Your task to perform on an android device: turn on location history Image 0: 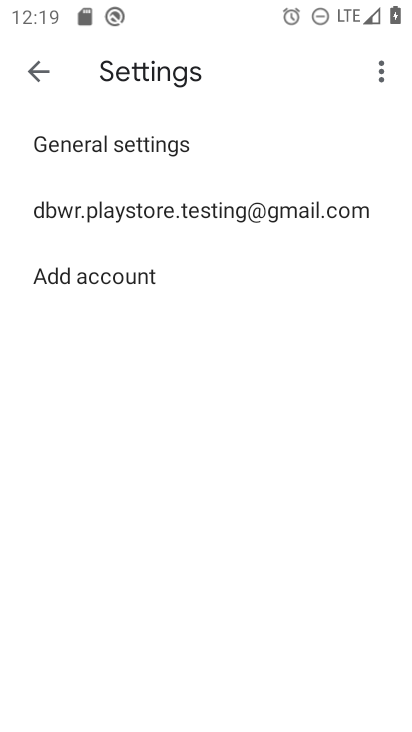
Step 0: press home button
Your task to perform on an android device: turn on location history Image 1: 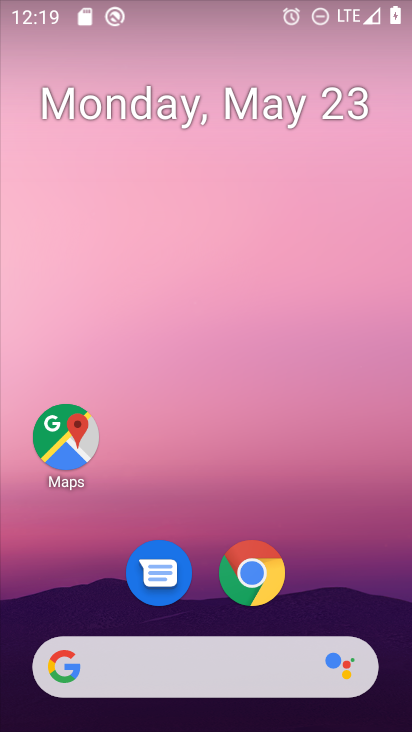
Step 1: drag from (323, 592) to (287, 65)
Your task to perform on an android device: turn on location history Image 2: 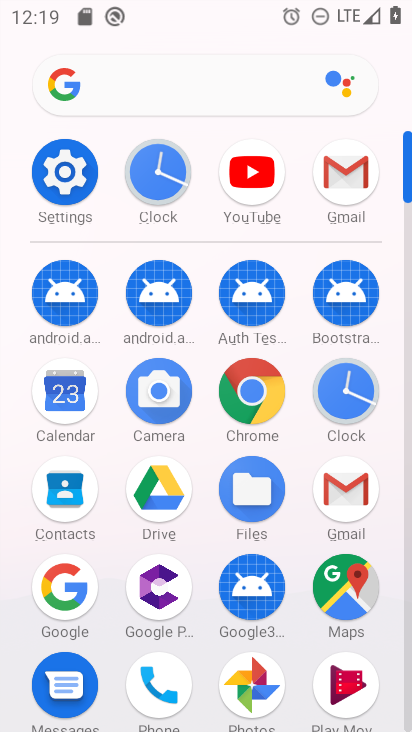
Step 2: click (72, 179)
Your task to perform on an android device: turn on location history Image 3: 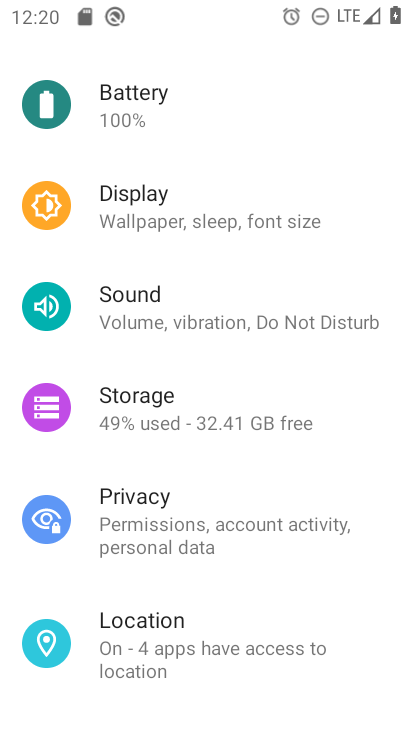
Step 3: click (184, 619)
Your task to perform on an android device: turn on location history Image 4: 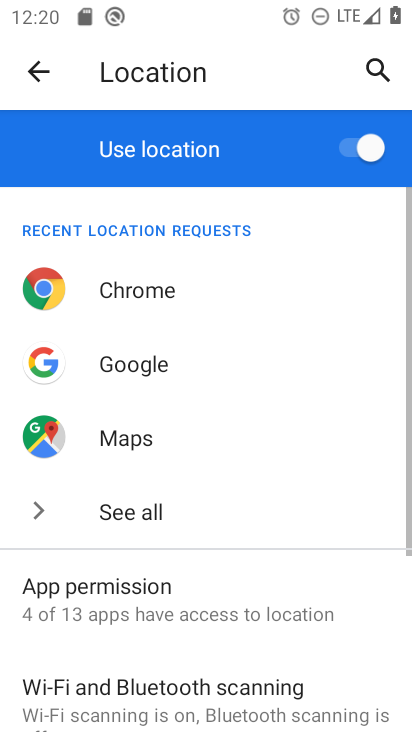
Step 4: drag from (173, 588) to (154, 274)
Your task to perform on an android device: turn on location history Image 5: 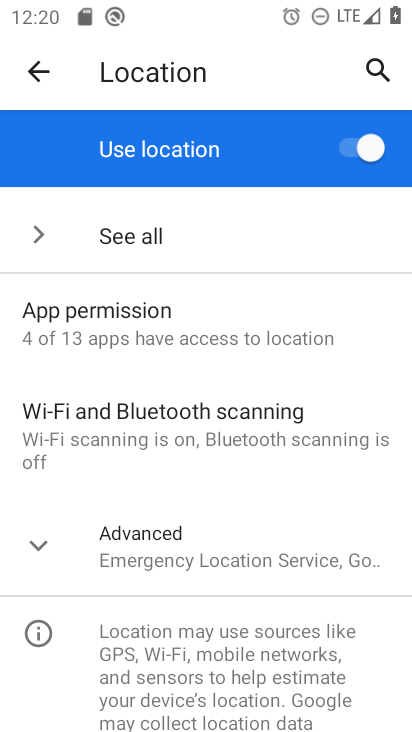
Step 5: click (163, 552)
Your task to perform on an android device: turn on location history Image 6: 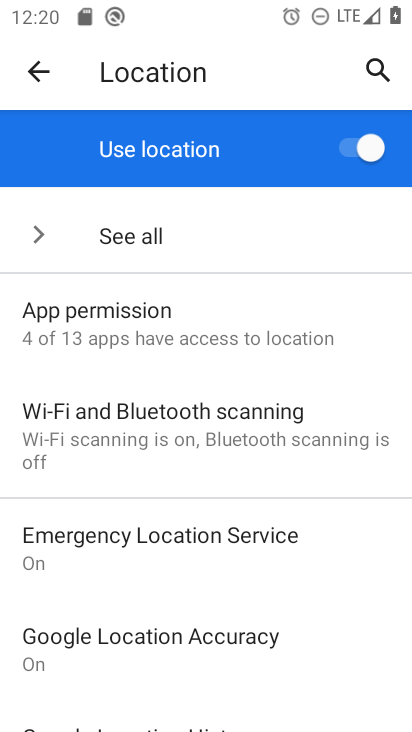
Step 6: drag from (164, 612) to (156, 401)
Your task to perform on an android device: turn on location history Image 7: 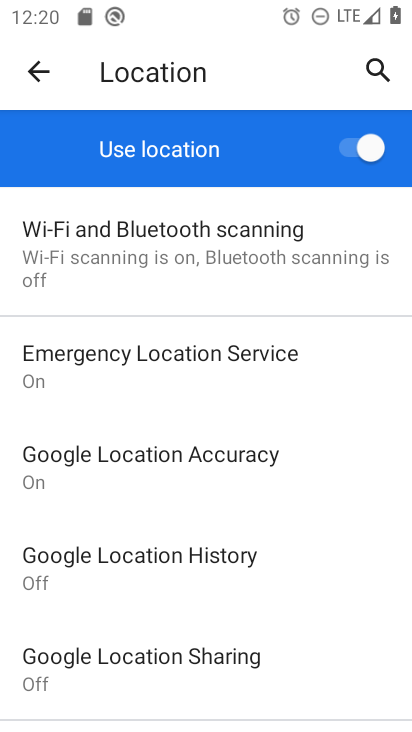
Step 7: click (194, 573)
Your task to perform on an android device: turn on location history Image 8: 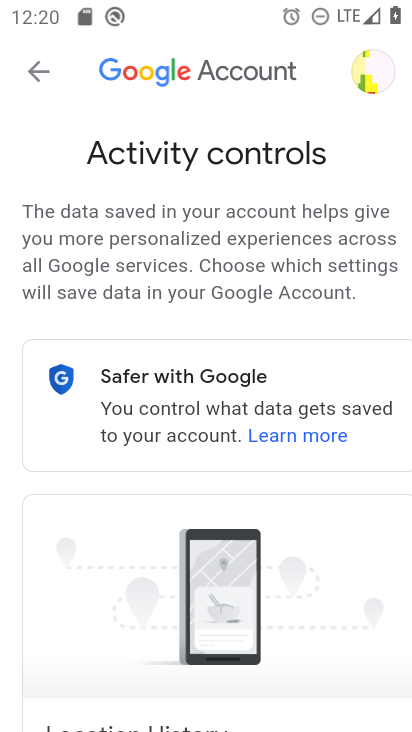
Step 8: drag from (224, 594) to (197, 161)
Your task to perform on an android device: turn on location history Image 9: 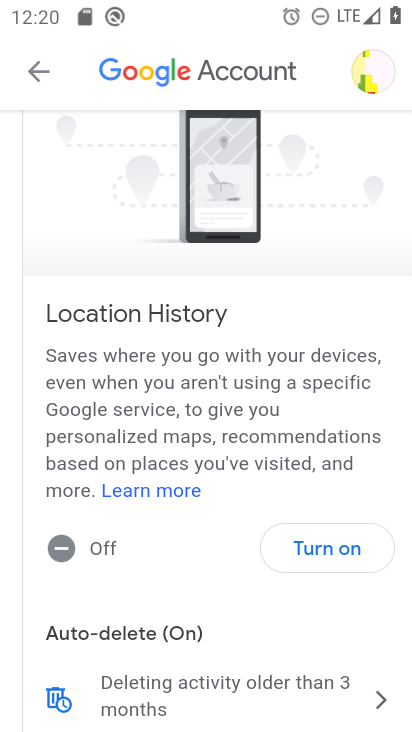
Step 9: click (322, 542)
Your task to perform on an android device: turn on location history Image 10: 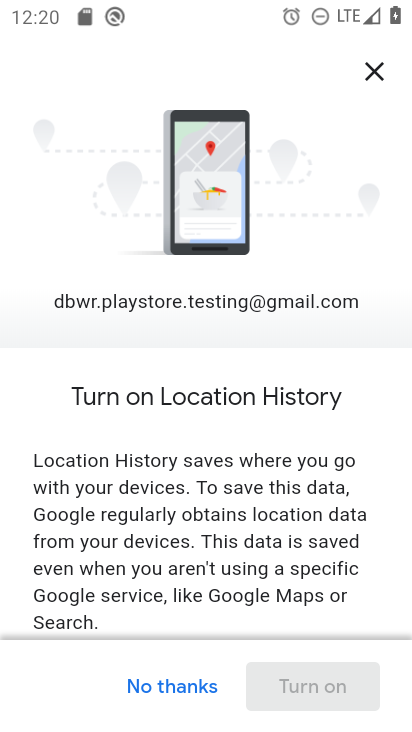
Step 10: drag from (320, 557) to (299, 0)
Your task to perform on an android device: turn on location history Image 11: 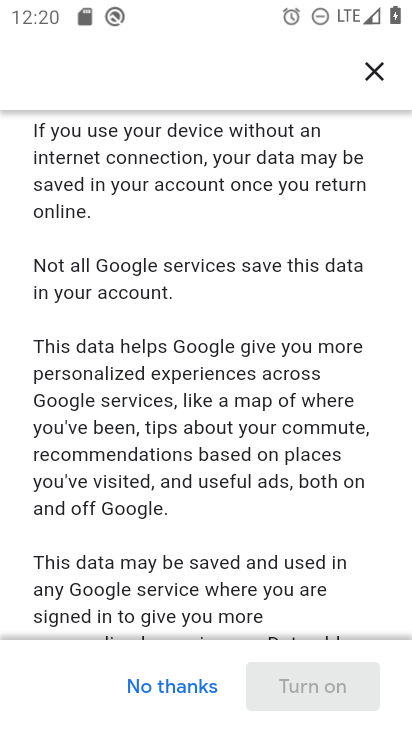
Step 11: drag from (278, 609) to (242, 178)
Your task to perform on an android device: turn on location history Image 12: 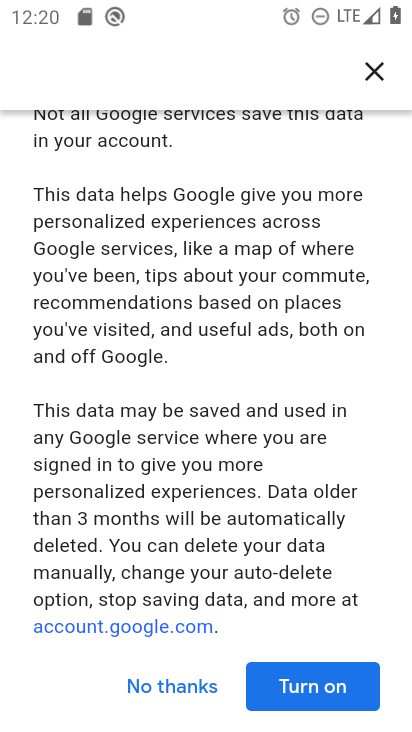
Step 12: click (315, 696)
Your task to perform on an android device: turn on location history Image 13: 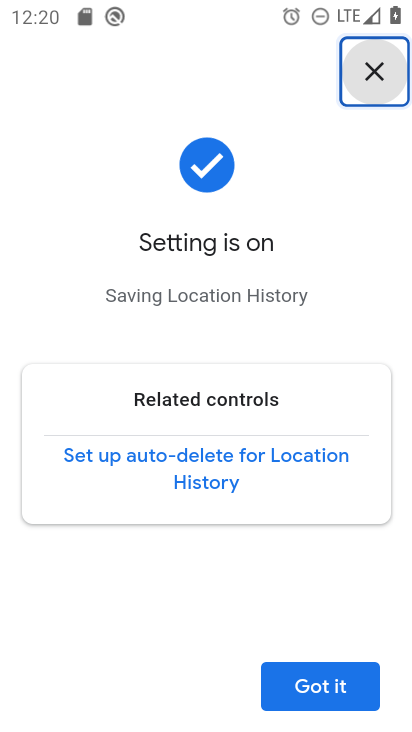
Step 13: task complete